Your task to perform on an android device: Search for pizza restaurants on Maps Image 0: 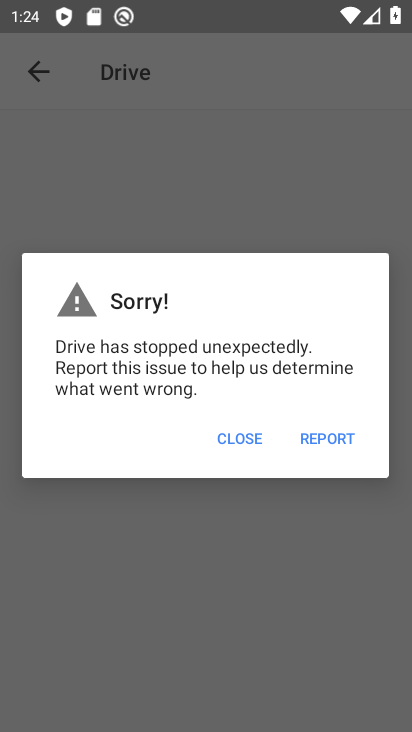
Step 0: press back button
Your task to perform on an android device: Search for pizza restaurants on Maps Image 1: 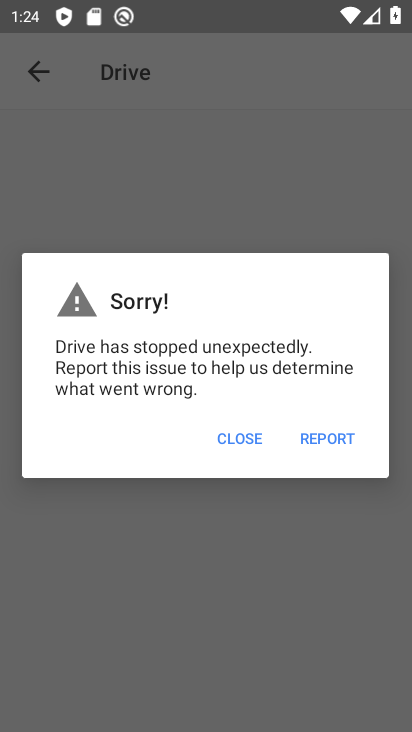
Step 1: press back button
Your task to perform on an android device: Search for pizza restaurants on Maps Image 2: 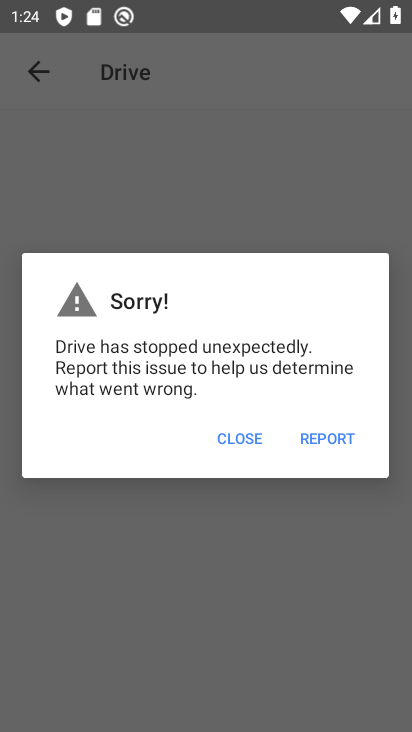
Step 2: press home button
Your task to perform on an android device: Search for pizza restaurants on Maps Image 3: 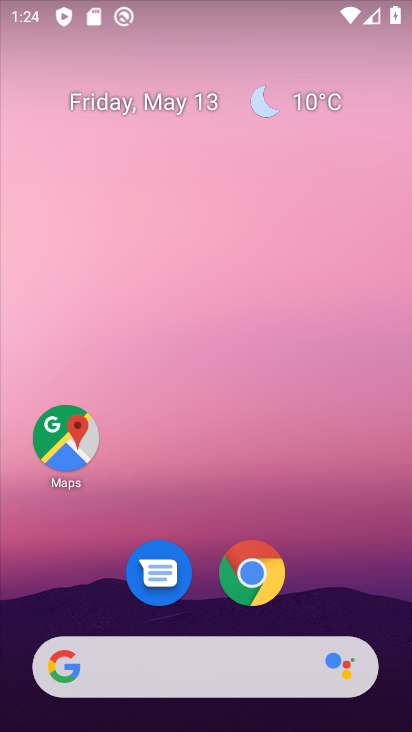
Step 3: drag from (327, 525) to (258, 36)
Your task to perform on an android device: Search for pizza restaurants on Maps Image 4: 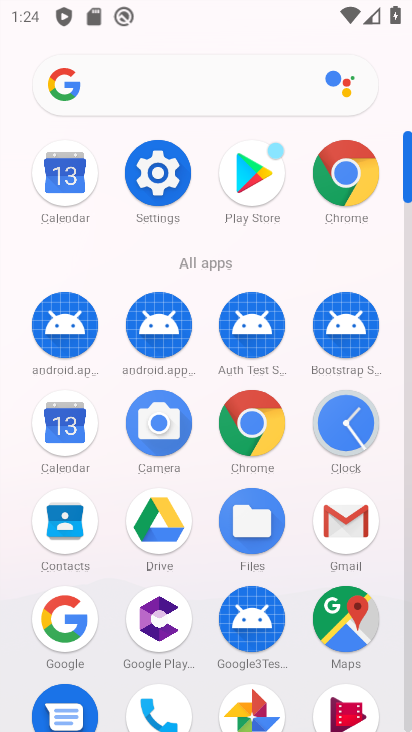
Step 4: click (344, 617)
Your task to perform on an android device: Search for pizza restaurants on Maps Image 5: 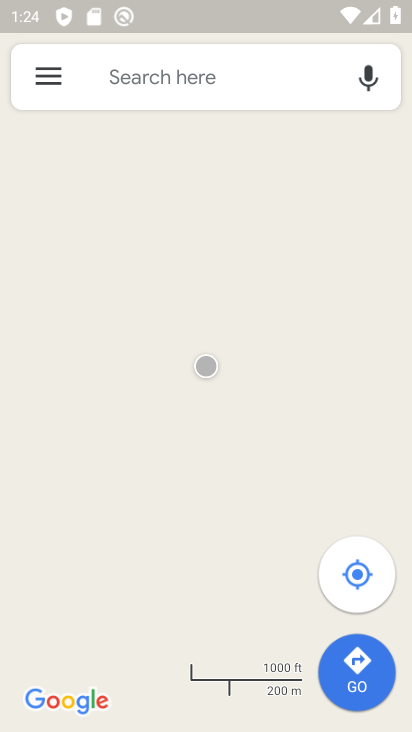
Step 5: click (258, 72)
Your task to perform on an android device: Search for pizza restaurants on Maps Image 6: 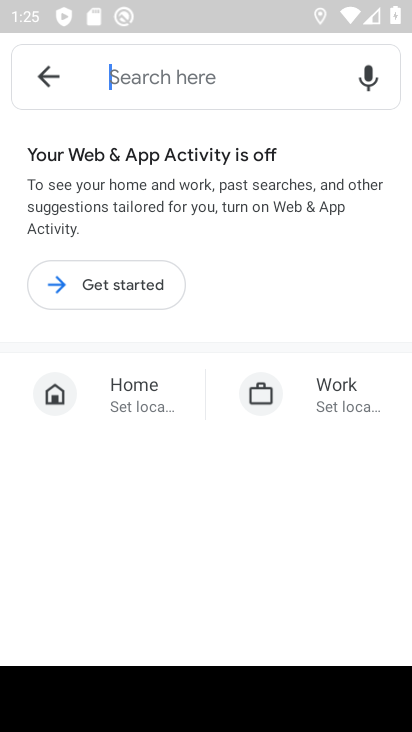
Step 6: type " pizza restaurants"
Your task to perform on an android device: Search for pizza restaurants on Maps Image 7: 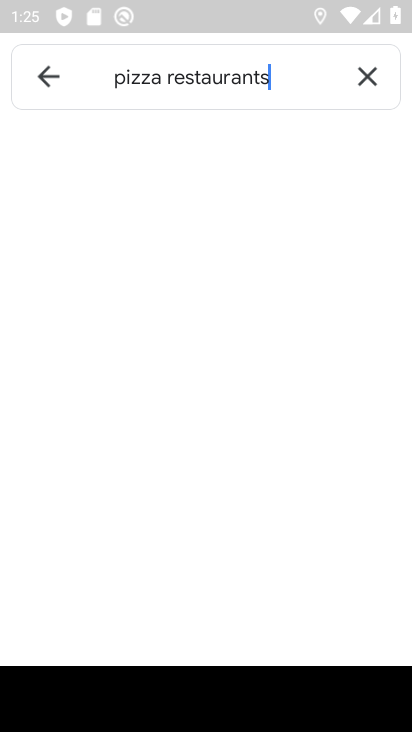
Step 7: type ""
Your task to perform on an android device: Search for pizza restaurants on Maps Image 8: 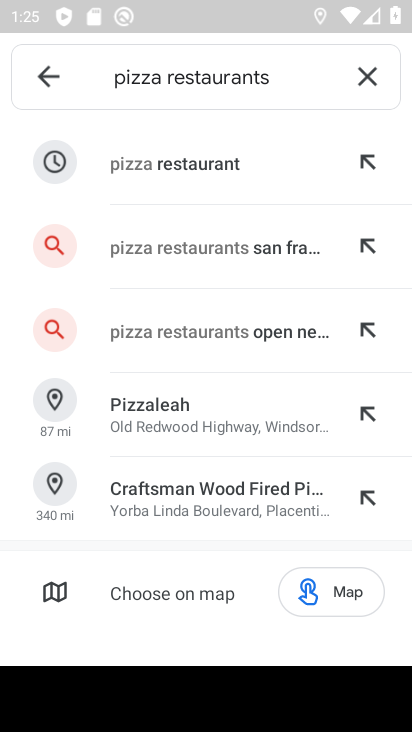
Step 8: click (159, 155)
Your task to perform on an android device: Search for pizza restaurants on Maps Image 9: 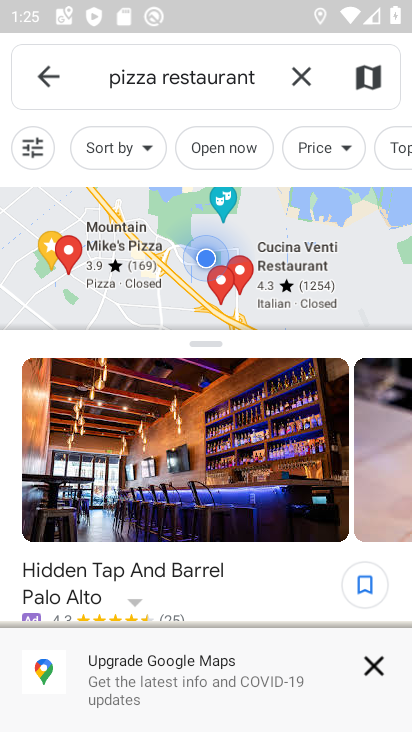
Step 9: task complete